Your task to perform on an android device: Set the phone to "Do not disturb". Image 0: 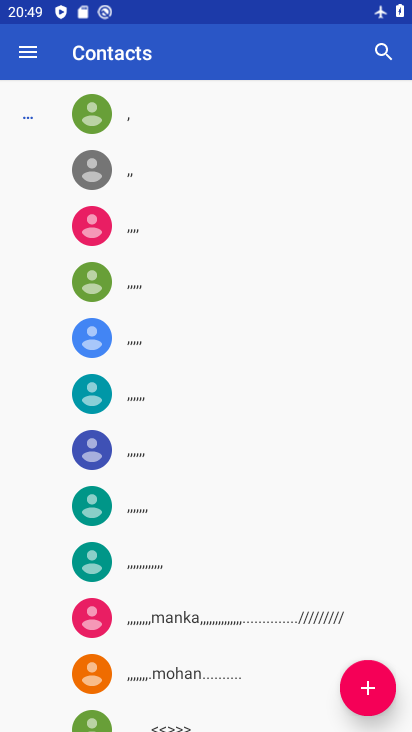
Step 0: press home button
Your task to perform on an android device: Set the phone to "Do not disturb". Image 1: 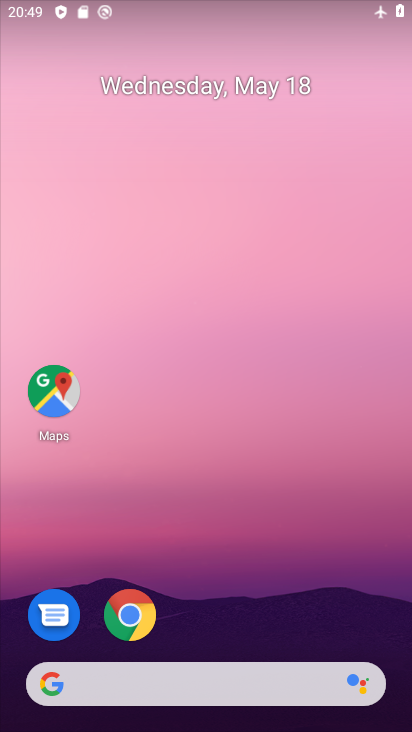
Step 1: drag from (184, 681) to (164, 66)
Your task to perform on an android device: Set the phone to "Do not disturb". Image 2: 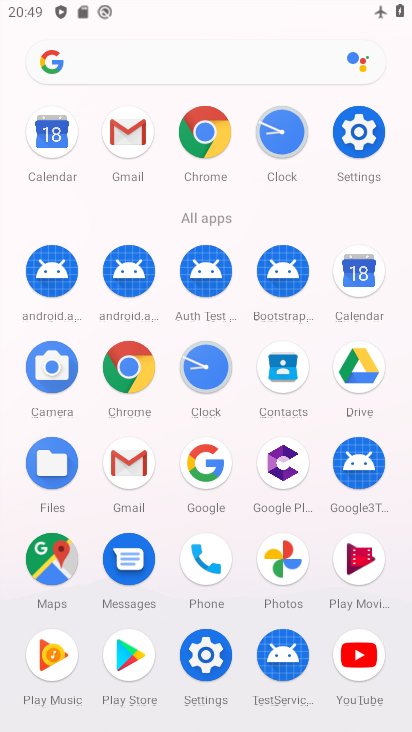
Step 2: click (346, 136)
Your task to perform on an android device: Set the phone to "Do not disturb". Image 3: 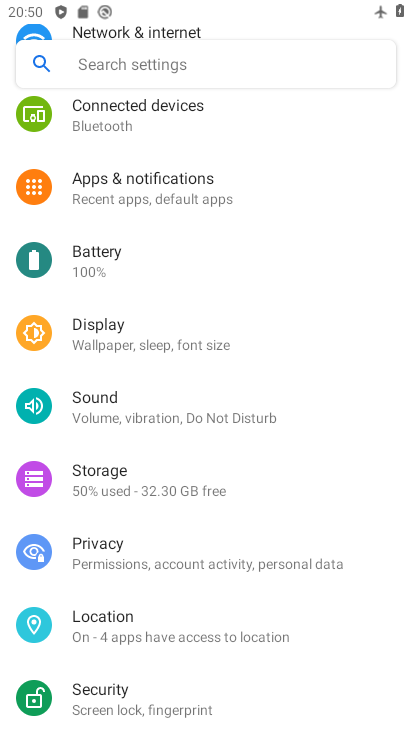
Step 3: click (113, 411)
Your task to perform on an android device: Set the phone to "Do not disturb". Image 4: 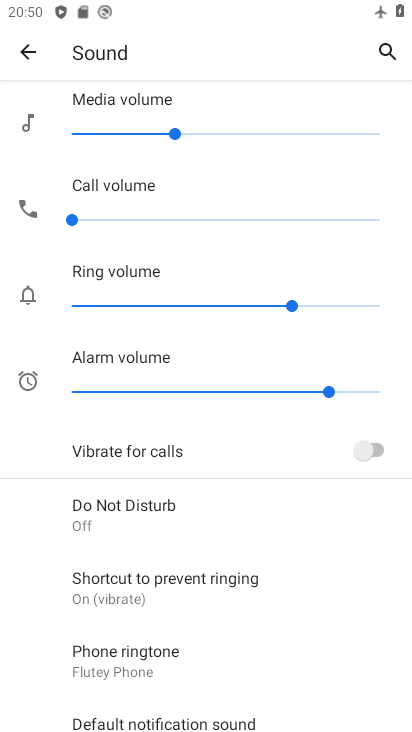
Step 4: click (154, 505)
Your task to perform on an android device: Set the phone to "Do not disturb". Image 5: 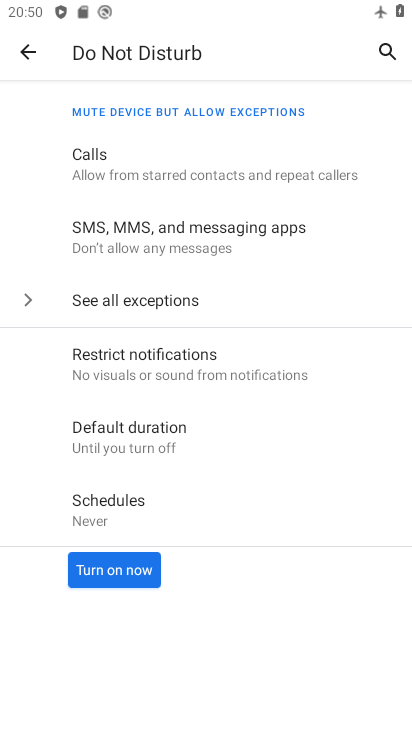
Step 5: click (98, 577)
Your task to perform on an android device: Set the phone to "Do not disturb". Image 6: 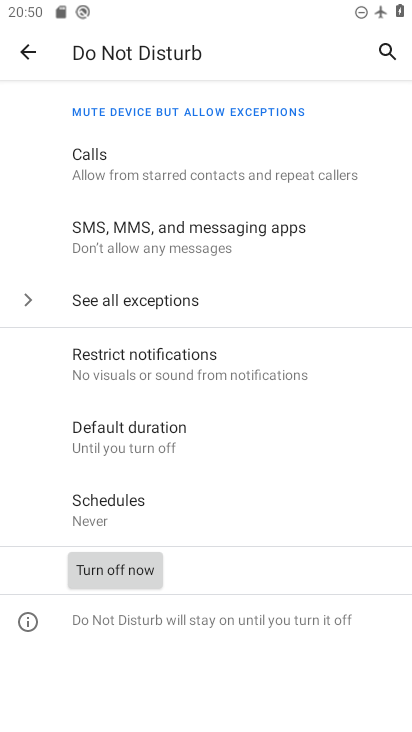
Step 6: task complete